Your task to perform on an android device: turn off priority inbox in the gmail app Image 0: 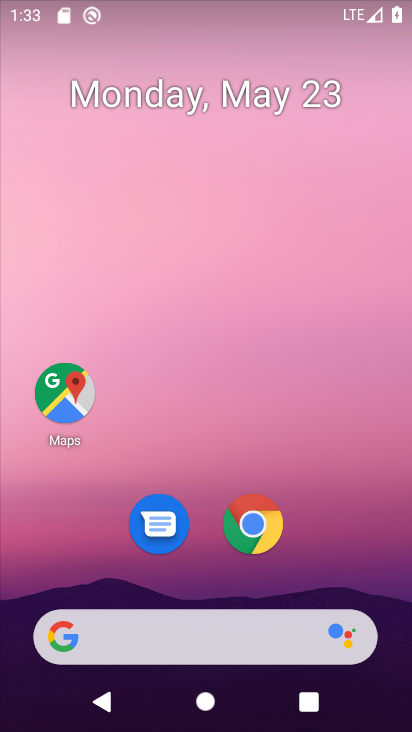
Step 0: drag from (293, 444) to (291, 39)
Your task to perform on an android device: turn off priority inbox in the gmail app Image 1: 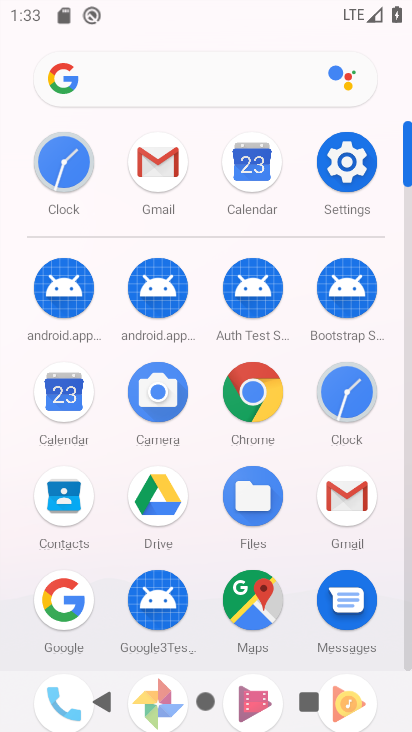
Step 1: click (157, 164)
Your task to perform on an android device: turn off priority inbox in the gmail app Image 2: 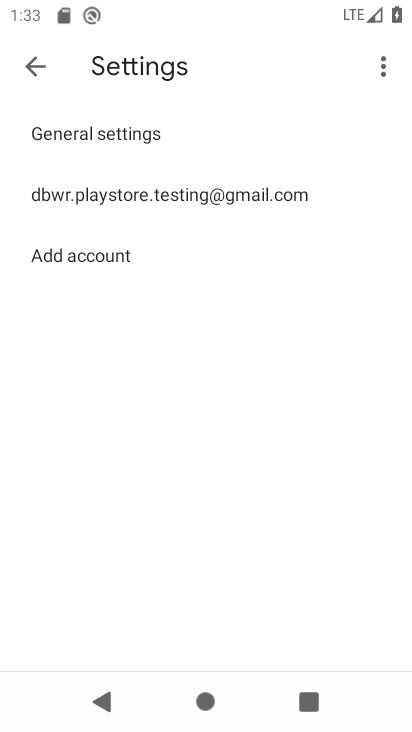
Step 2: click (154, 191)
Your task to perform on an android device: turn off priority inbox in the gmail app Image 3: 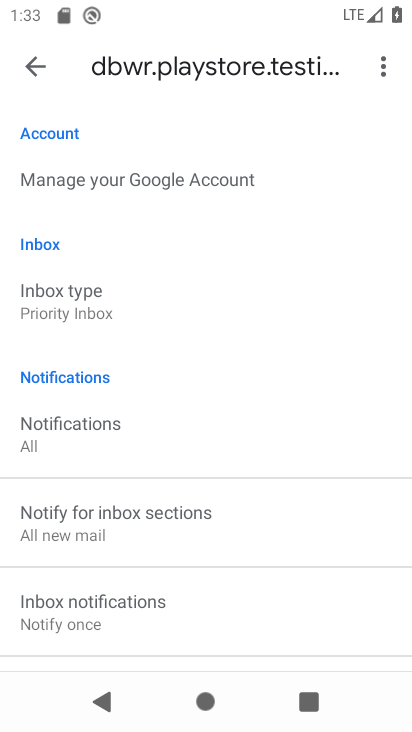
Step 3: click (72, 284)
Your task to perform on an android device: turn off priority inbox in the gmail app Image 4: 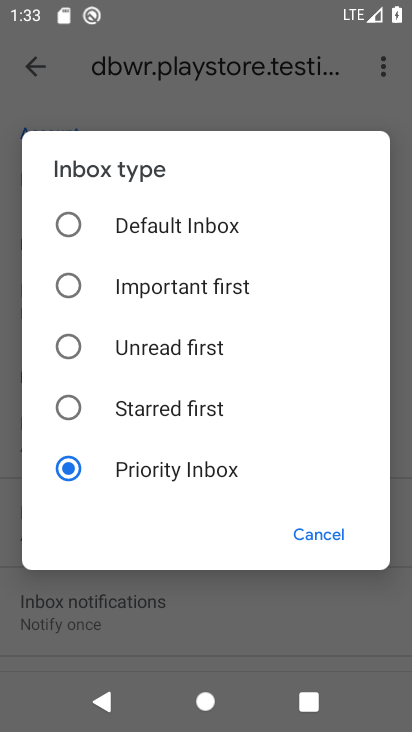
Step 4: click (68, 211)
Your task to perform on an android device: turn off priority inbox in the gmail app Image 5: 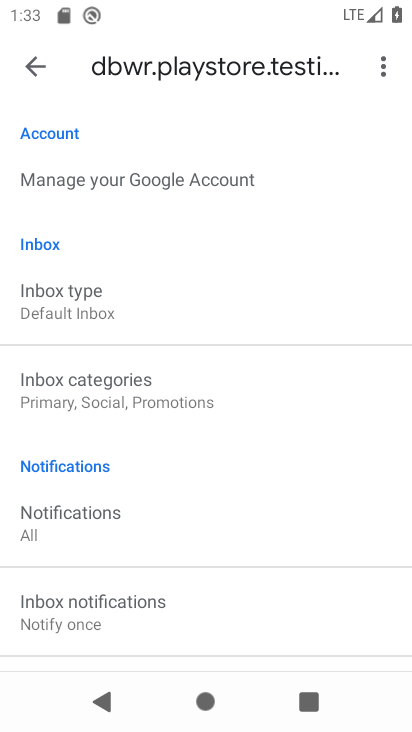
Step 5: task complete